Your task to perform on an android device: check google app version Image 0: 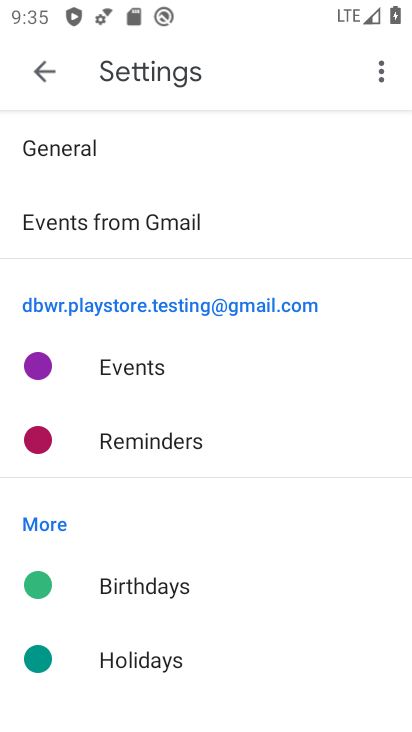
Step 0: press home button
Your task to perform on an android device: check google app version Image 1: 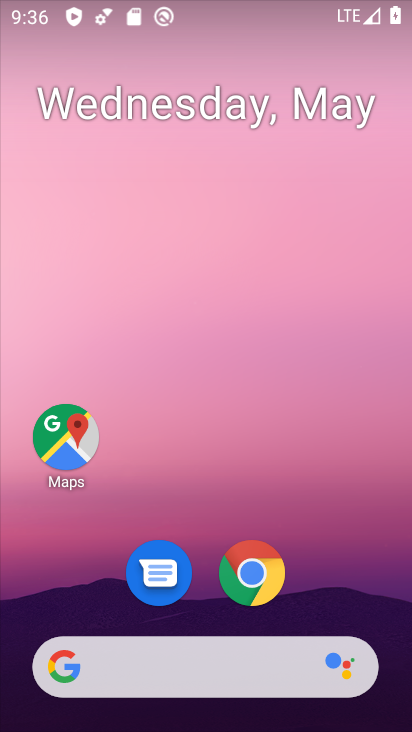
Step 1: drag from (322, 575) to (231, 171)
Your task to perform on an android device: check google app version Image 2: 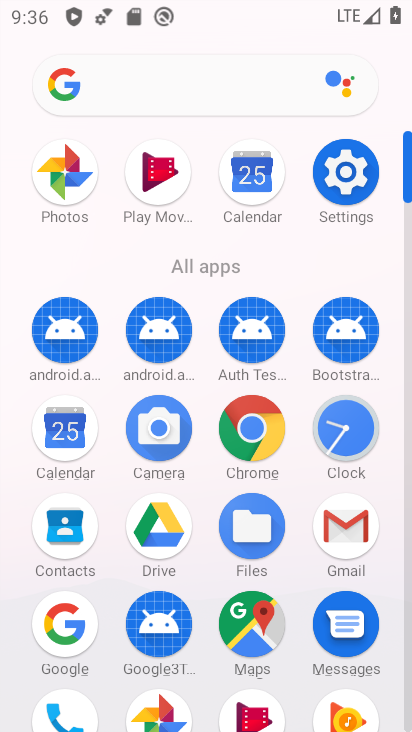
Step 2: click (53, 621)
Your task to perform on an android device: check google app version Image 3: 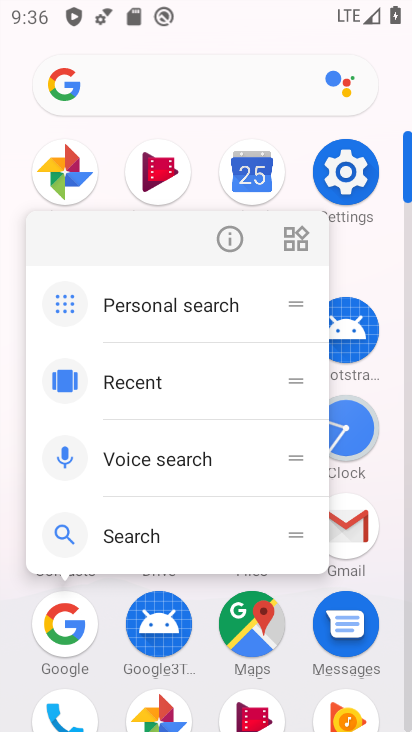
Step 3: click (224, 238)
Your task to perform on an android device: check google app version Image 4: 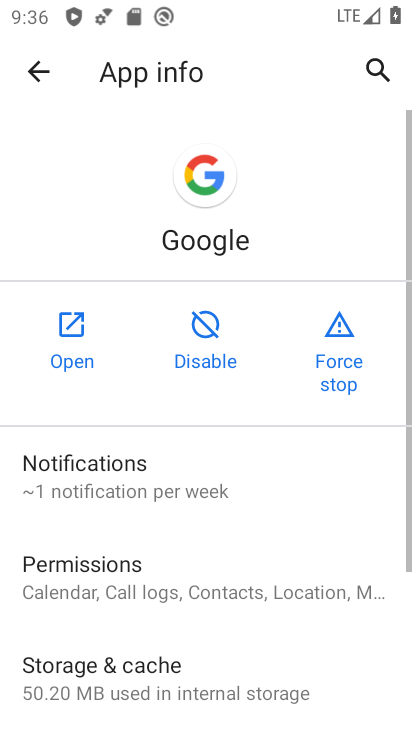
Step 4: drag from (293, 685) to (244, 310)
Your task to perform on an android device: check google app version Image 5: 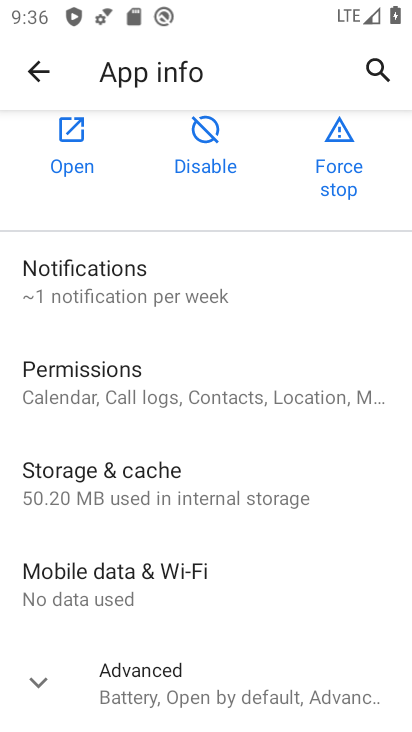
Step 5: click (37, 688)
Your task to perform on an android device: check google app version Image 6: 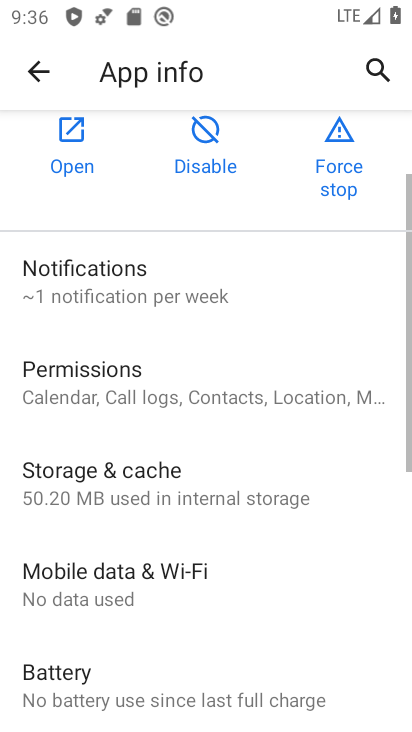
Step 6: task complete